Your task to perform on an android device: turn off improve location accuracy Image 0: 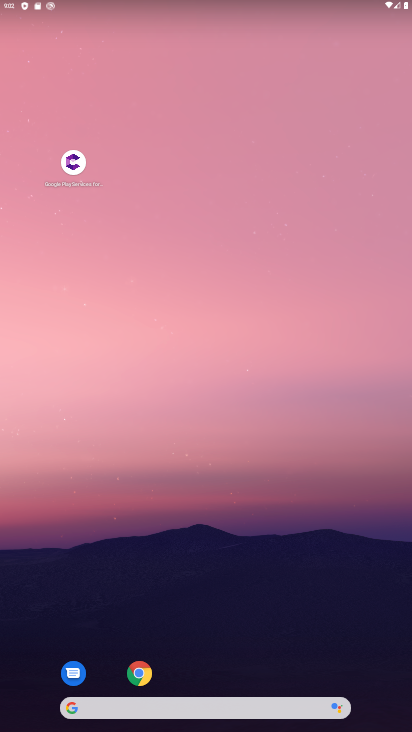
Step 0: drag from (213, 555) to (212, 172)
Your task to perform on an android device: turn off improve location accuracy Image 1: 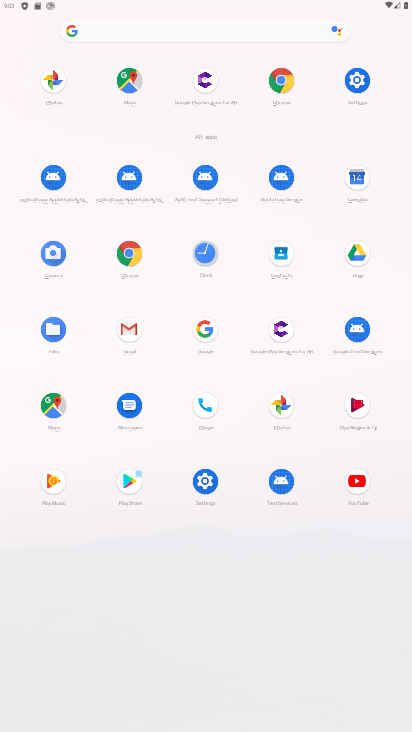
Step 1: click (356, 78)
Your task to perform on an android device: turn off improve location accuracy Image 2: 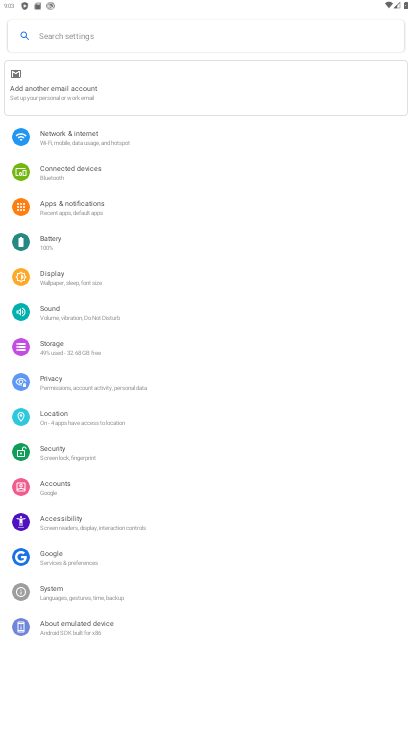
Step 2: click (49, 413)
Your task to perform on an android device: turn off improve location accuracy Image 3: 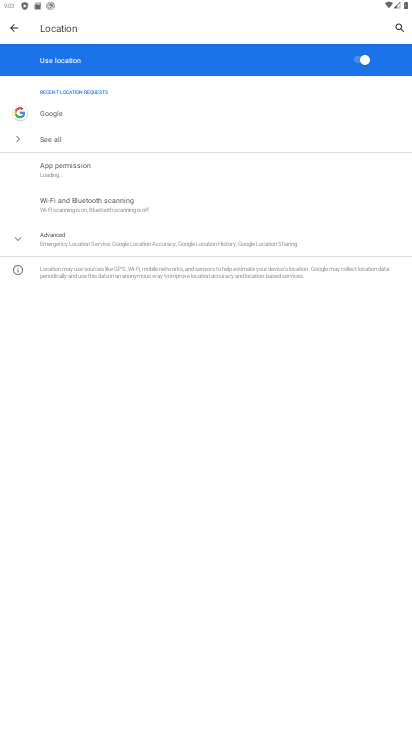
Step 3: click (26, 234)
Your task to perform on an android device: turn off improve location accuracy Image 4: 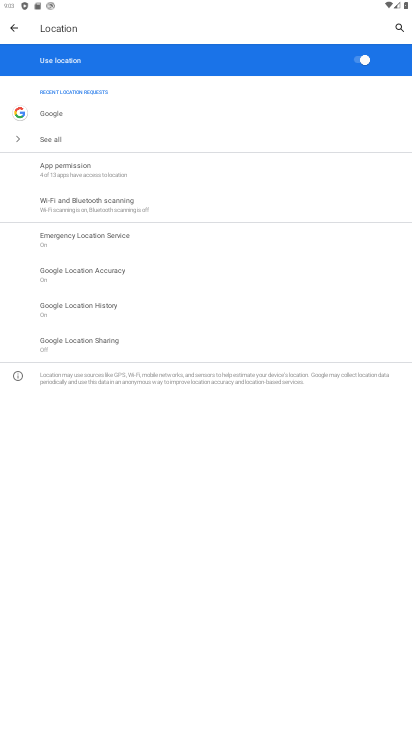
Step 4: click (71, 276)
Your task to perform on an android device: turn off improve location accuracy Image 5: 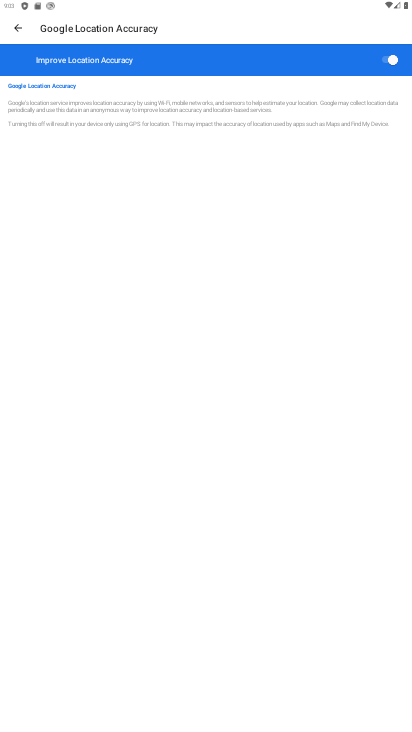
Step 5: click (388, 55)
Your task to perform on an android device: turn off improve location accuracy Image 6: 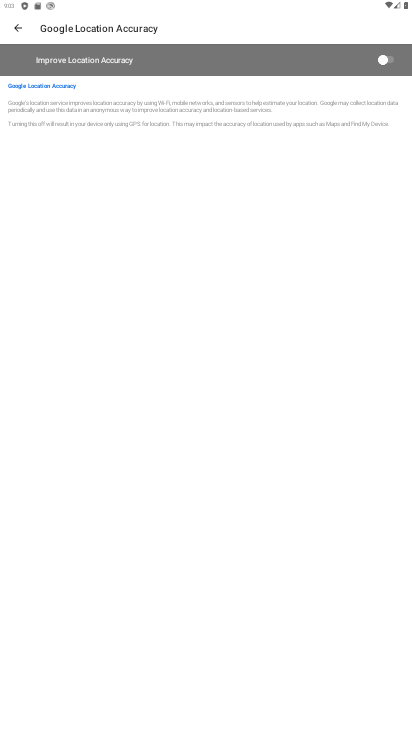
Step 6: task complete